Your task to perform on an android device: open app "Cash App" (install if not already installed) and enter user name: "submodules@gmail.com" and password: "heavenly" Image 0: 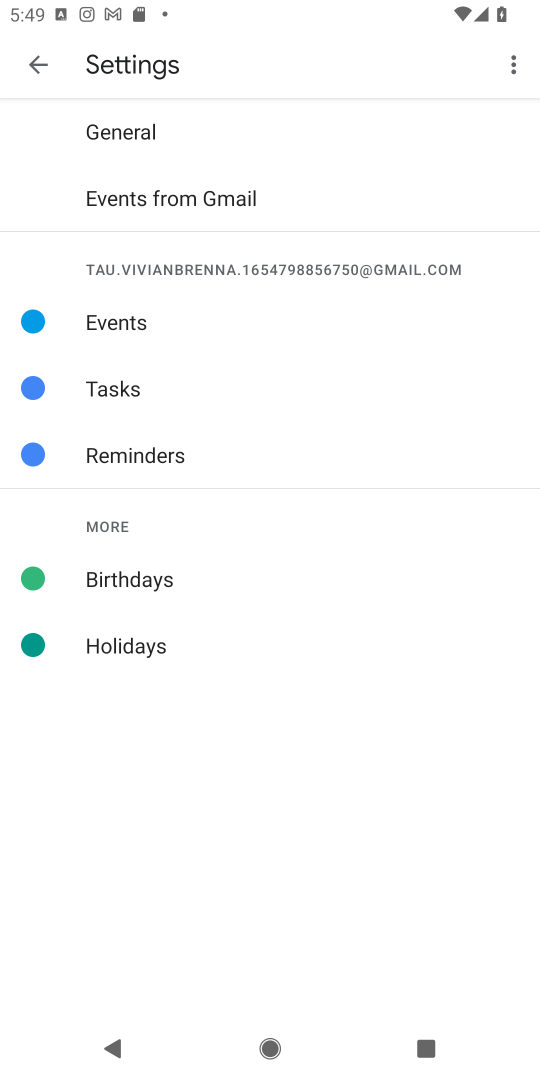
Step 0: press home button
Your task to perform on an android device: open app "Cash App" (install if not already installed) and enter user name: "submodules@gmail.com" and password: "heavenly" Image 1: 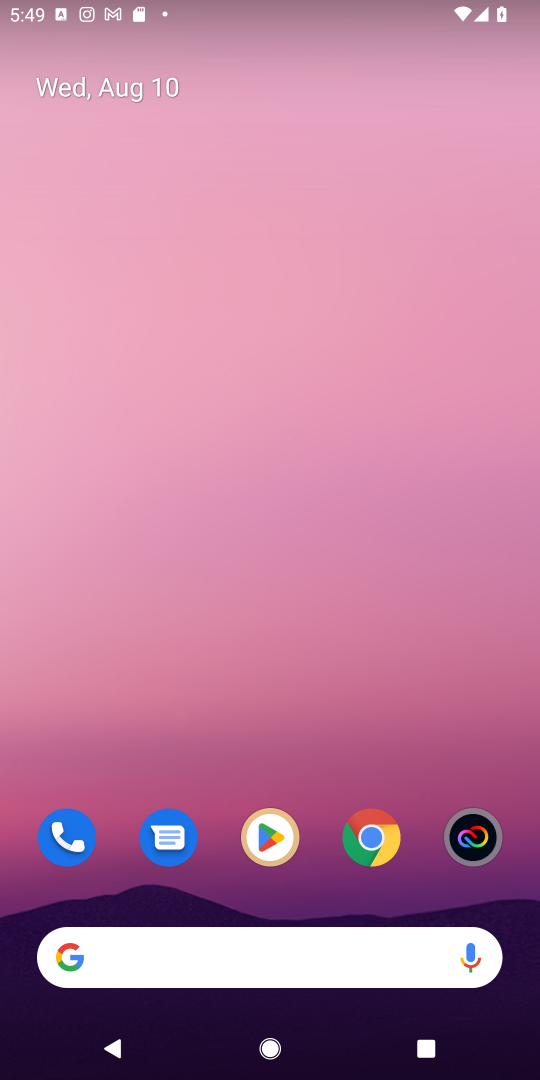
Step 1: click (265, 835)
Your task to perform on an android device: open app "Cash App" (install if not already installed) and enter user name: "submodules@gmail.com" and password: "heavenly" Image 2: 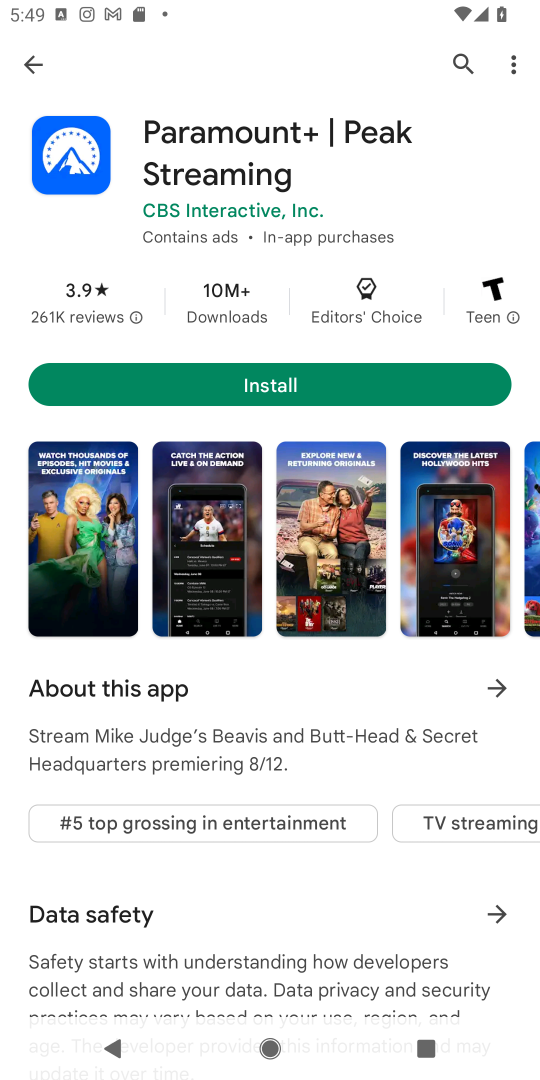
Step 2: click (459, 60)
Your task to perform on an android device: open app "Cash App" (install if not already installed) and enter user name: "submodules@gmail.com" and password: "heavenly" Image 3: 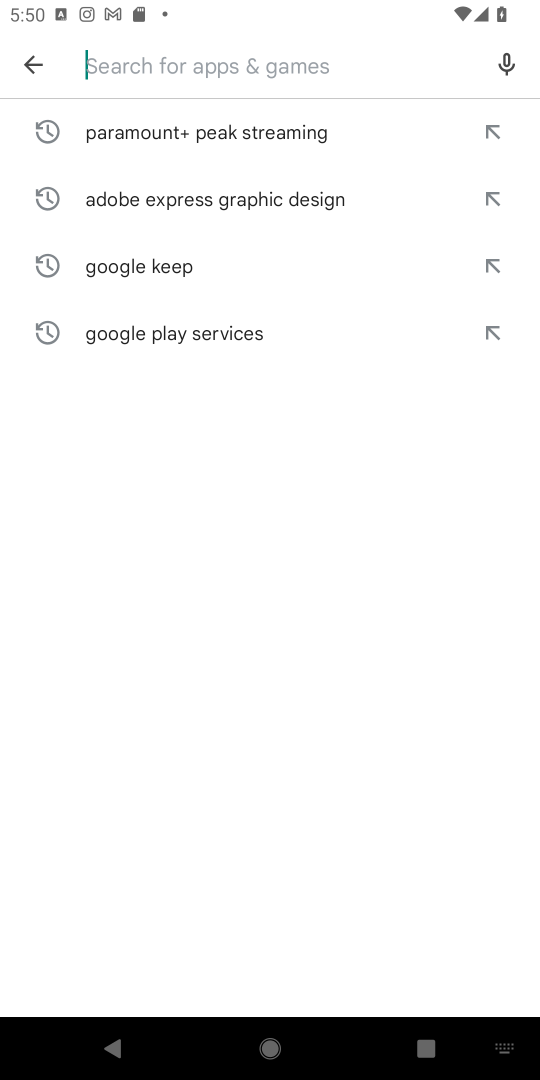
Step 3: type "Cash App"
Your task to perform on an android device: open app "Cash App" (install if not already installed) and enter user name: "submodules@gmail.com" and password: "heavenly" Image 4: 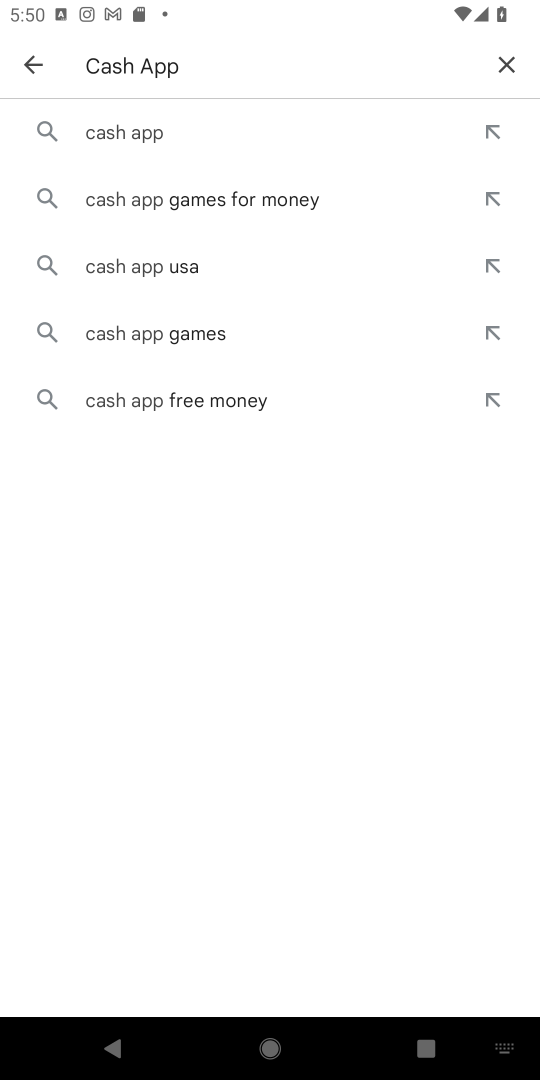
Step 4: click (176, 136)
Your task to perform on an android device: open app "Cash App" (install if not already installed) and enter user name: "submodules@gmail.com" and password: "heavenly" Image 5: 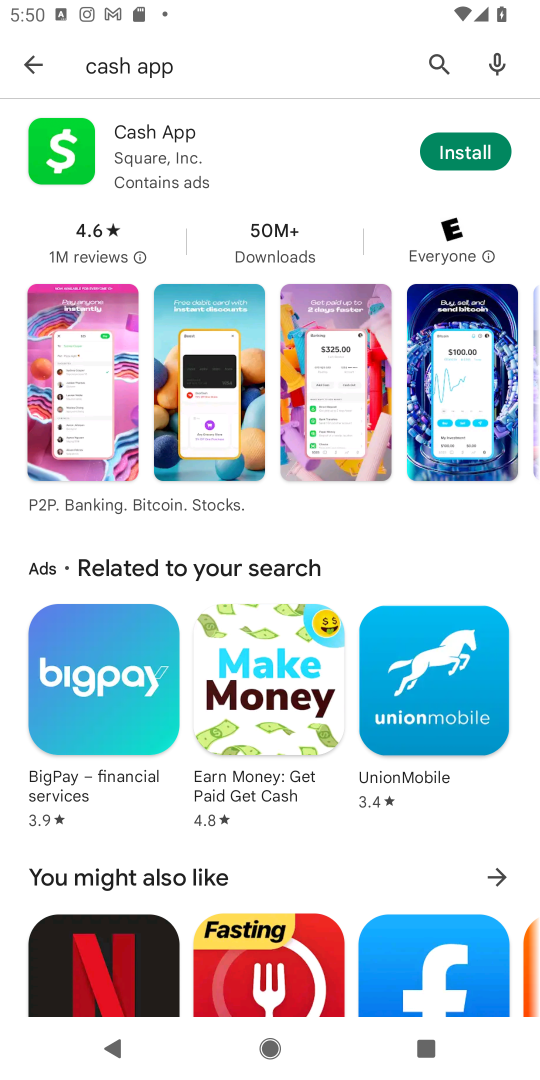
Step 5: click (467, 151)
Your task to perform on an android device: open app "Cash App" (install if not already installed) and enter user name: "submodules@gmail.com" and password: "heavenly" Image 6: 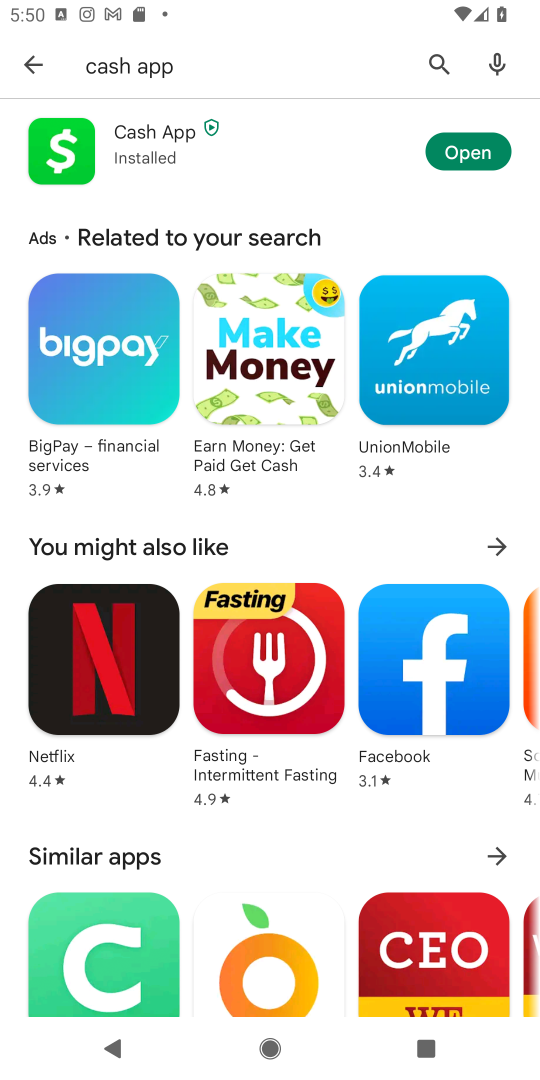
Step 6: click (462, 149)
Your task to perform on an android device: open app "Cash App" (install if not already installed) and enter user name: "submodules@gmail.com" and password: "heavenly" Image 7: 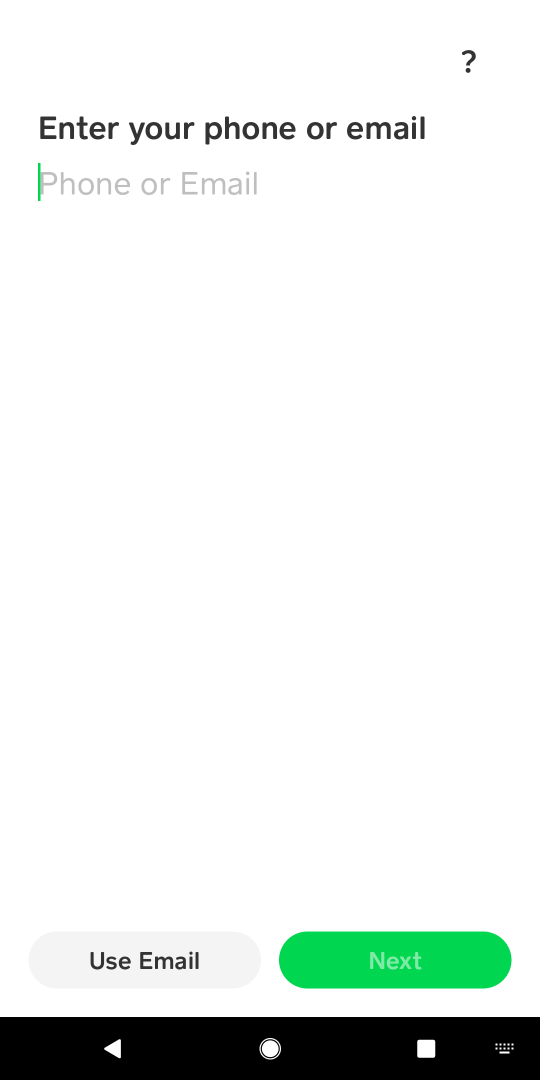
Step 7: task complete